Your task to perform on an android device: turn vacation reply on in the gmail app Image 0: 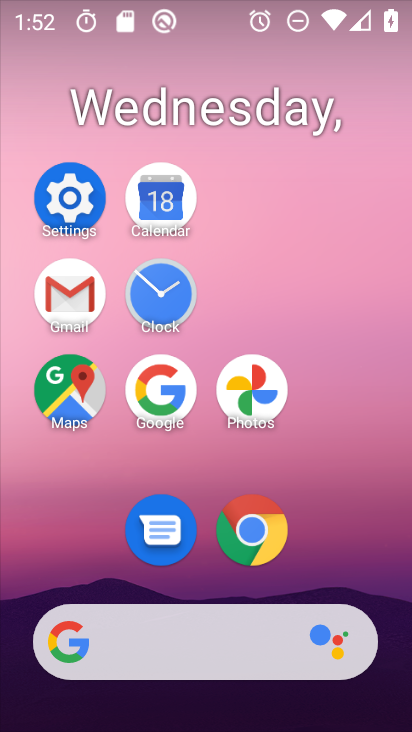
Step 0: click (63, 292)
Your task to perform on an android device: turn vacation reply on in the gmail app Image 1: 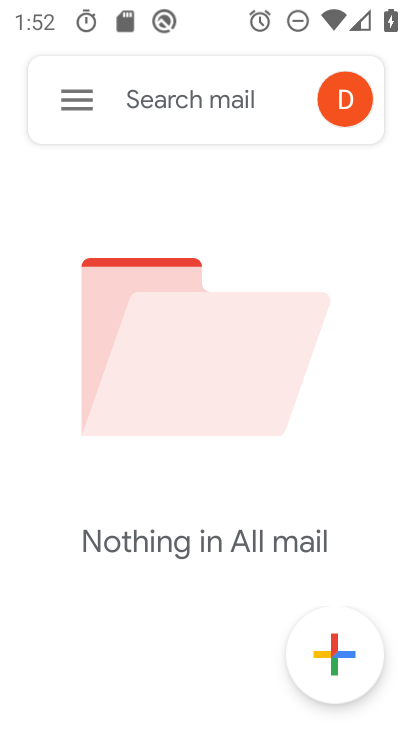
Step 1: click (91, 115)
Your task to perform on an android device: turn vacation reply on in the gmail app Image 2: 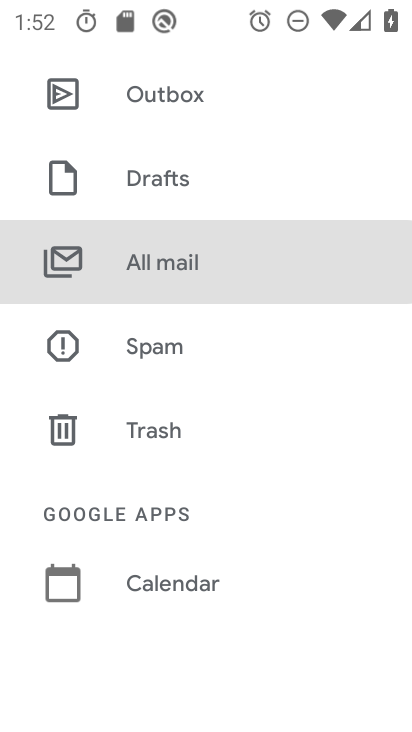
Step 2: drag from (205, 599) to (227, 190)
Your task to perform on an android device: turn vacation reply on in the gmail app Image 3: 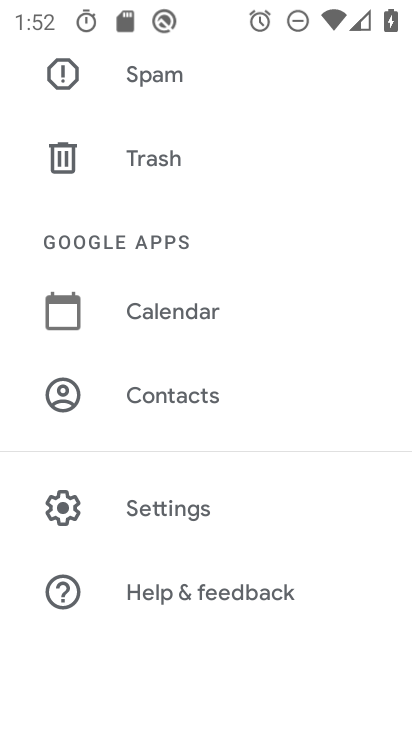
Step 3: click (211, 523)
Your task to perform on an android device: turn vacation reply on in the gmail app Image 4: 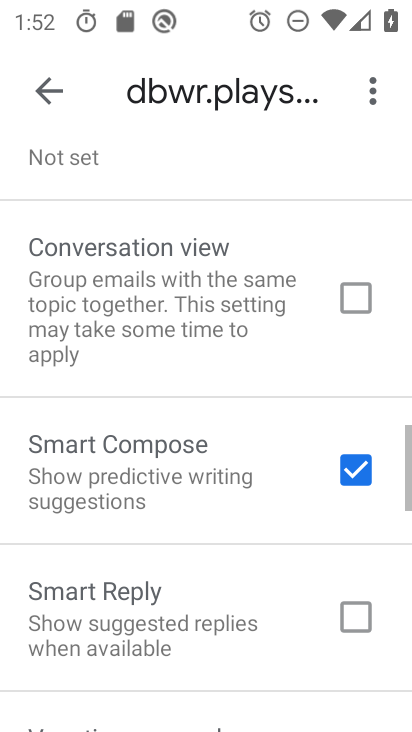
Step 4: drag from (206, 455) to (184, 173)
Your task to perform on an android device: turn vacation reply on in the gmail app Image 5: 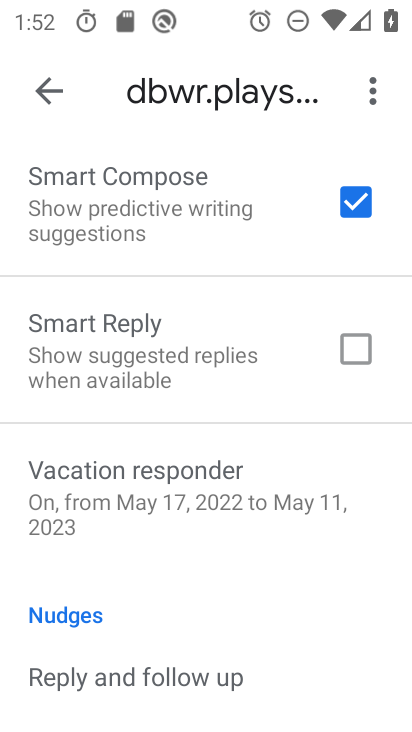
Step 5: drag from (214, 553) to (270, 288)
Your task to perform on an android device: turn vacation reply on in the gmail app Image 6: 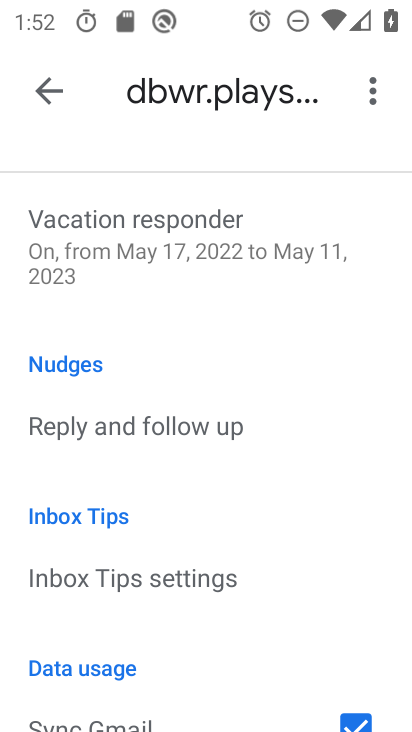
Step 6: click (259, 242)
Your task to perform on an android device: turn vacation reply on in the gmail app Image 7: 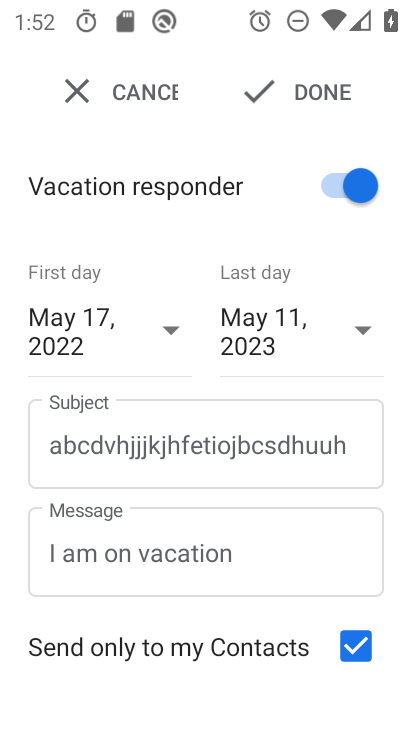
Step 7: click (321, 85)
Your task to perform on an android device: turn vacation reply on in the gmail app Image 8: 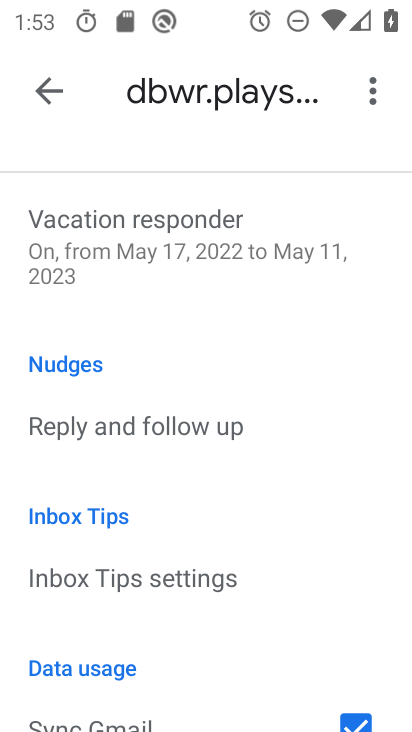
Step 8: task complete